Your task to perform on an android device: Open wifi settings Image 0: 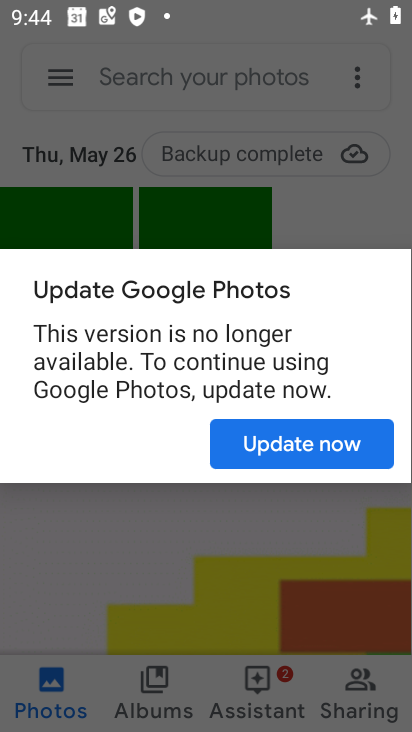
Step 0: press home button
Your task to perform on an android device: Open wifi settings Image 1: 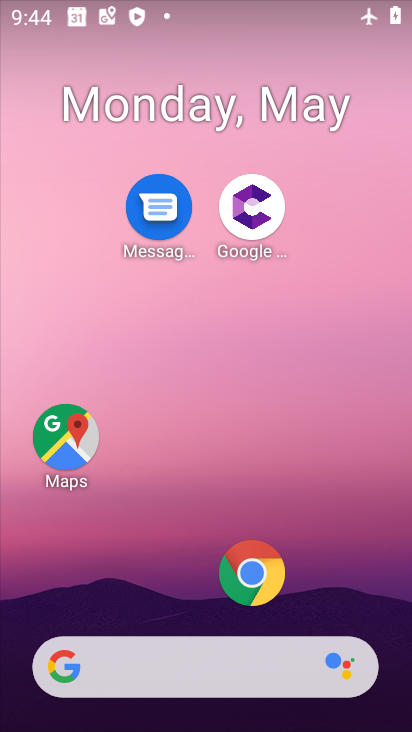
Step 1: drag from (151, 623) to (230, 149)
Your task to perform on an android device: Open wifi settings Image 2: 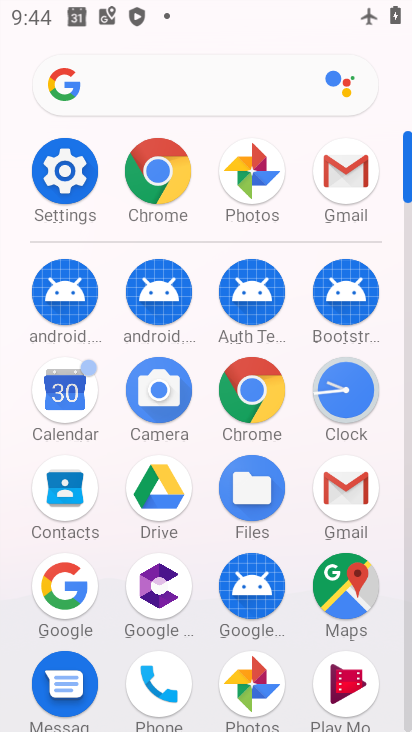
Step 2: click (58, 177)
Your task to perform on an android device: Open wifi settings Image 3: 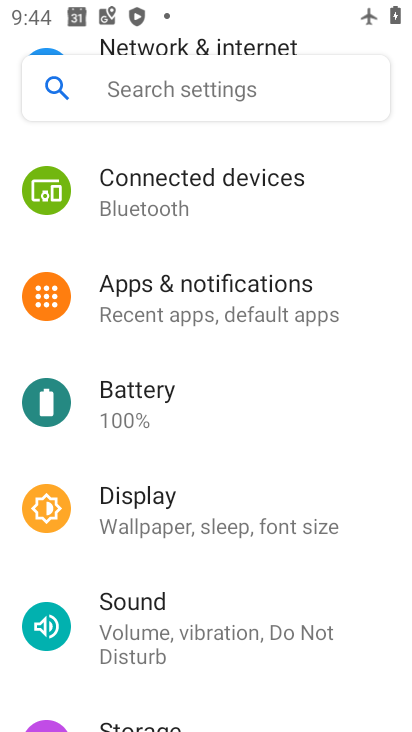
Step 3: drag from (173, 373) to (132, 612)
Your task to perform on an android device: Open wifi settings Image 4: 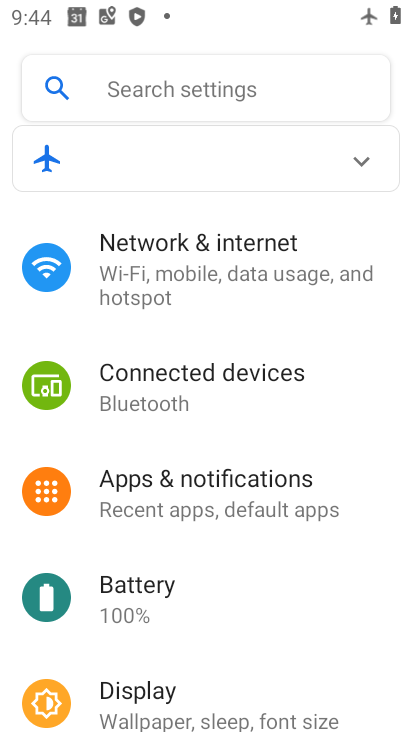
Step 4: click (237, 292)
Your task to perform on an android device: Open wifi settings Image 5: 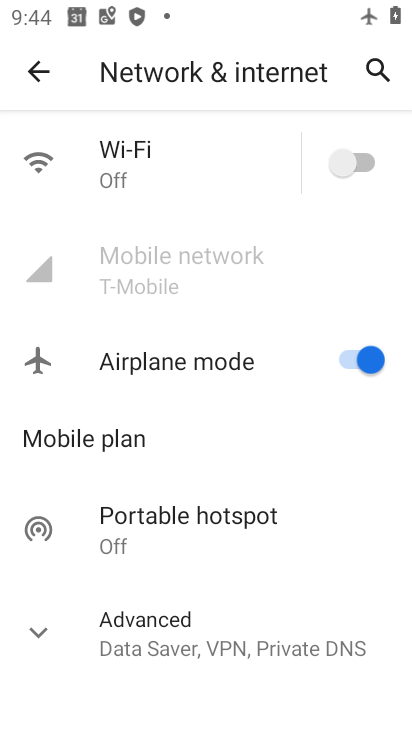
Step 5: click (150, 165)
Your task to perform on an android device: Open wifi settings Image 6: 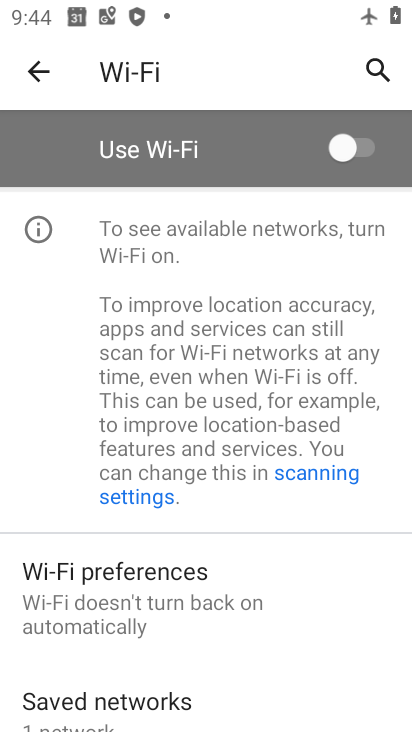
Step 6: task complete